Your task to perform on an android device: turn off data saver in the chrome app Image 0: 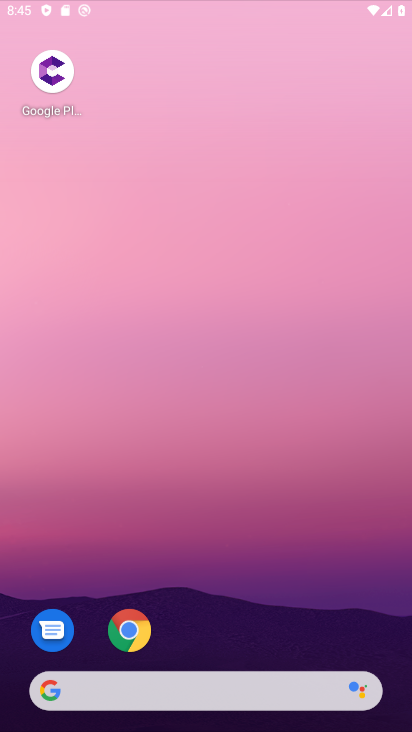
Step 0: press home button
Your task to perform on an android device: turn off data saver in the chrome app Image 1: 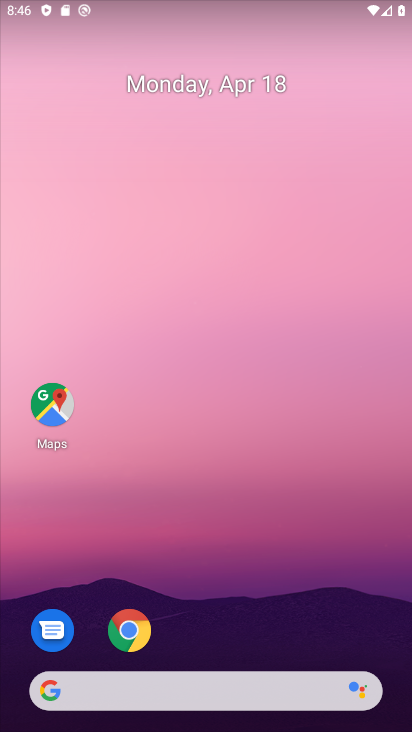
Step 1: click (129, 619)
Your task to perform on an android device: turn off data saver in the chrome app Image 2: 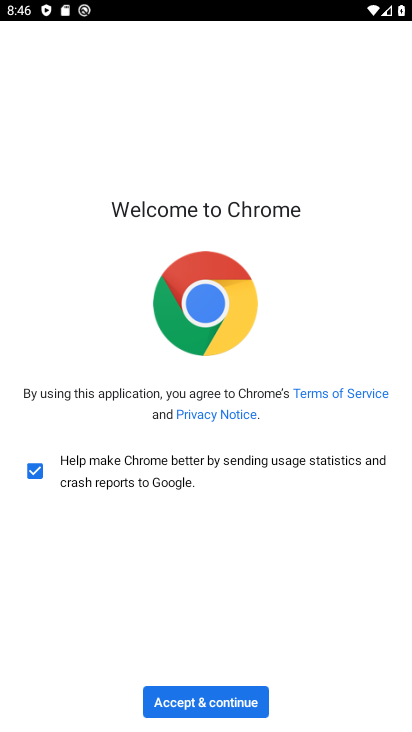
Step 2: click (196, 702)
Your task to perform on an android device: turn off data saver in the chrome app Image 3: 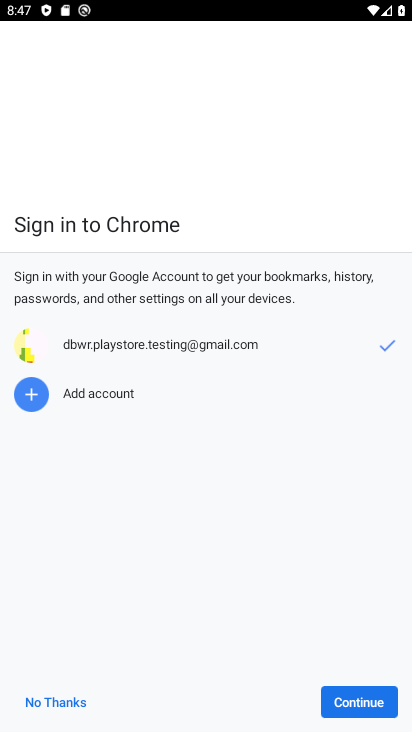
Step 3: click (374, 695)
Your task to perform on an android device: turn off data saver in the chrome app Image 4: 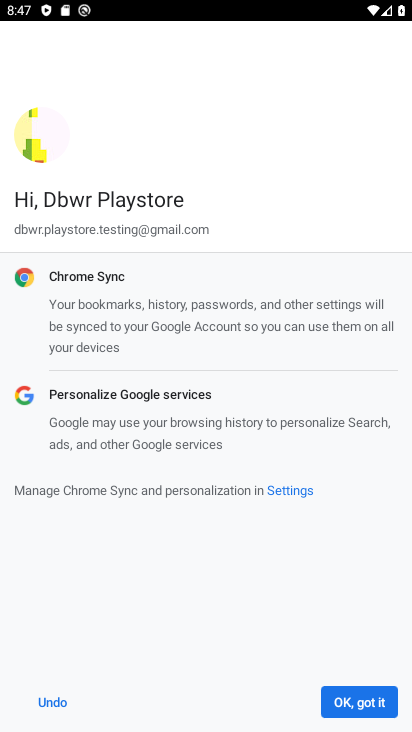
Step 4: click (374, 695)
Your task to perform on an android device: turn off data saver in the chrome app Image 5: 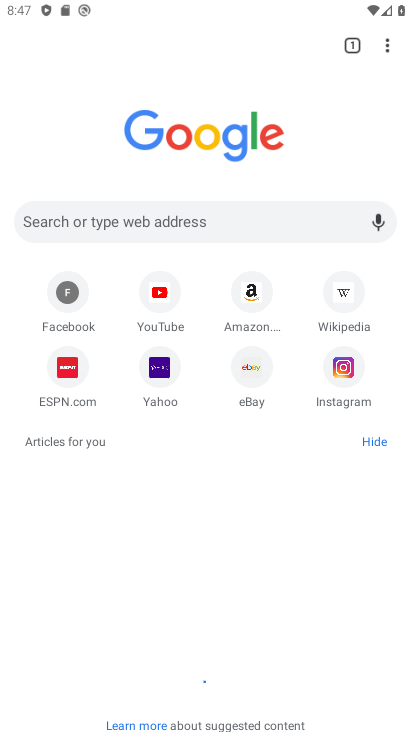
Step 5: click (384, 41)
Your task to perform on an android device: turn off data saver in the chrome app Image 6: 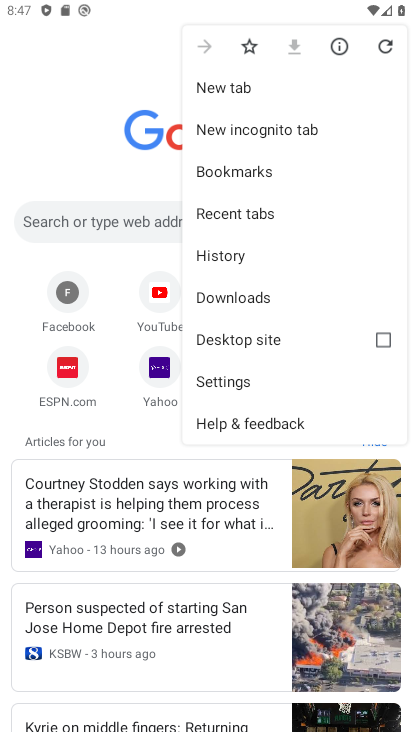
Step 6: click (237, 378)
Your task to perform on an android device: turn off data saver in the chrome app Image 7: 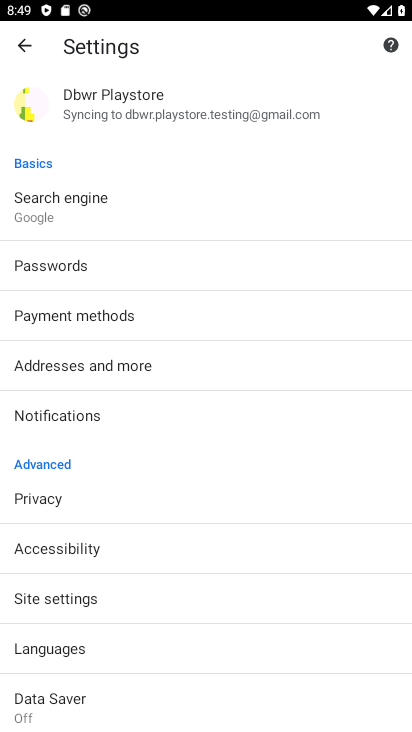
Step 7: drag from (205, 548) to (241, 143)
Your task to perform on an android device: turn off data saver in the chrome app Image 8: 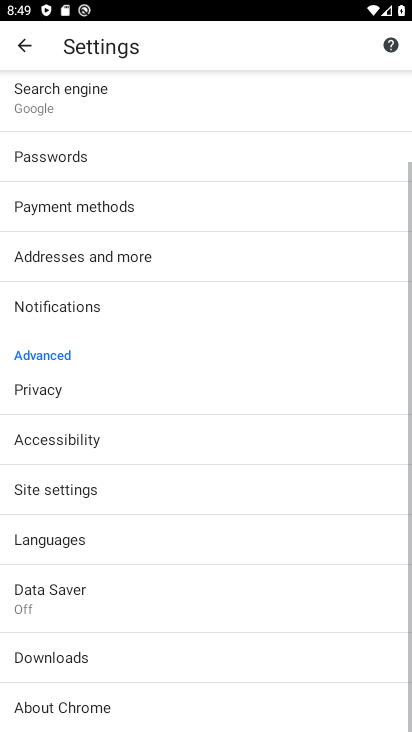
Step 8: click (36, 601)
Your task to perform on an android device: turn off data saver in the chrome app Image 9: 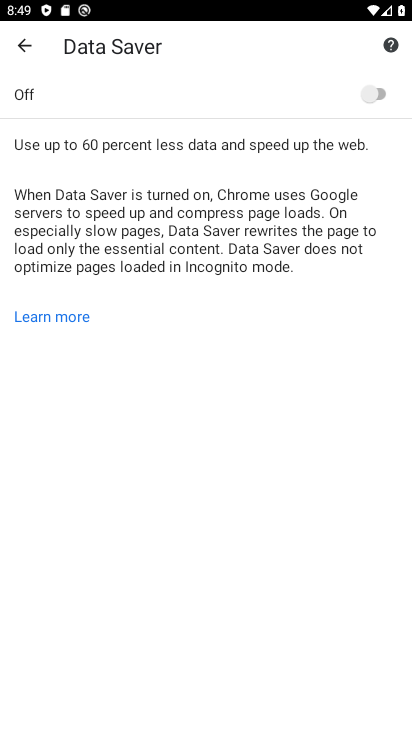
Step 9: task complete